Your task to perform on an android device: open chrome privacy settings Image 0: 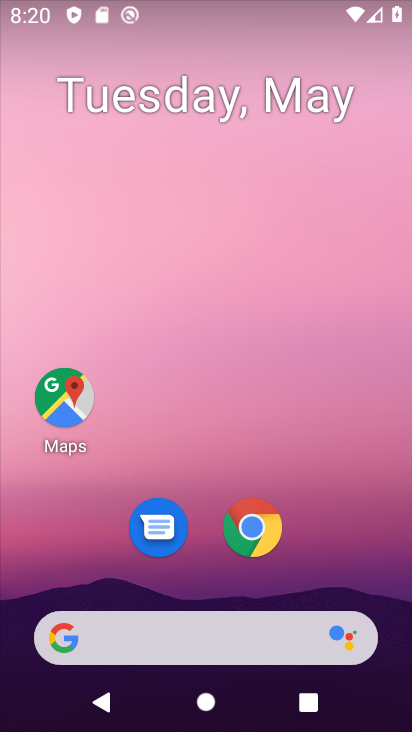
Step 0: click (256, 541)
Your task to perform on an android device: open chrome privacy settings Image 1: 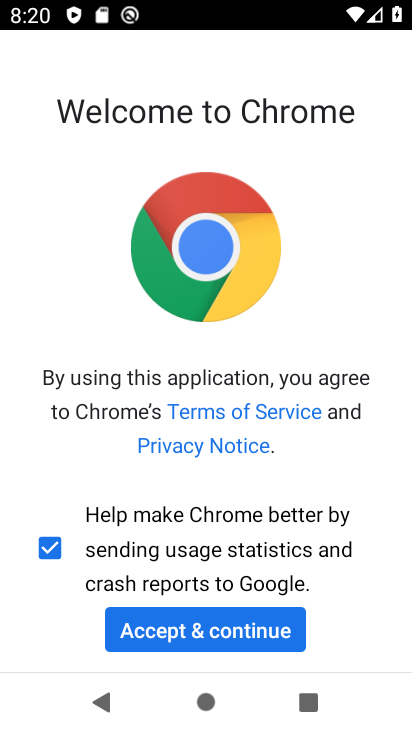
Step 1: click (233, 622)
Your task to perform on an android device: open chrome privacy settings Image 2: 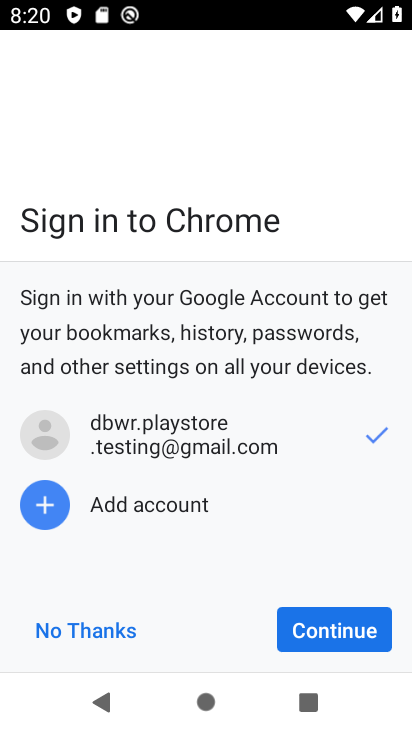
Step 2: click (331, 618)
Your task to perform on an android device: open chrome privacy settings Image 3: 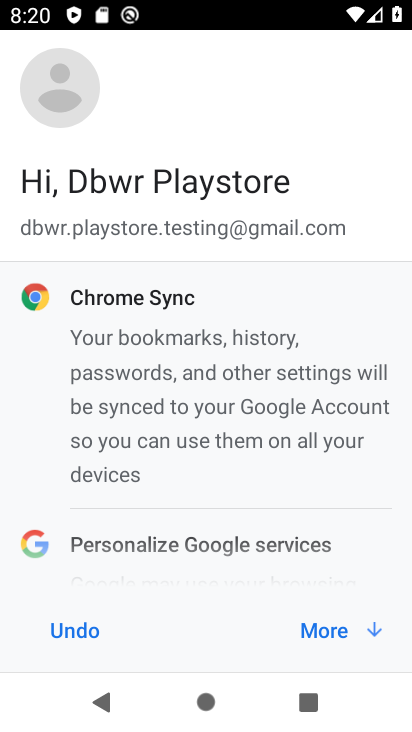
Step 3: click (332, 636)
Your task to perform on an android device: open chrome privacy settings Image 4: 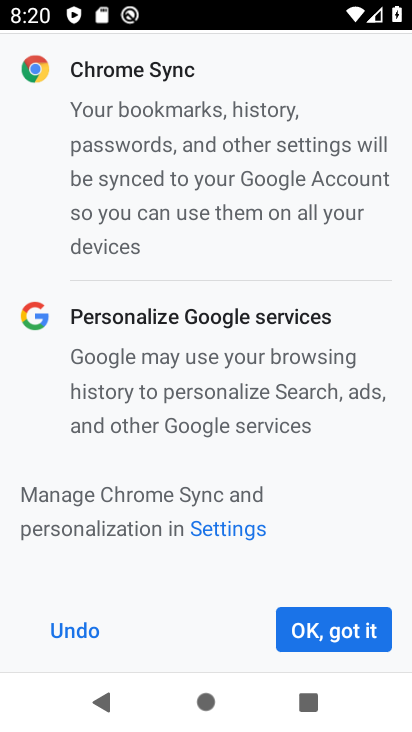
Step 4: click (332, 636)
Your task to perform on an android device: open chrome privacy settings Image 5: 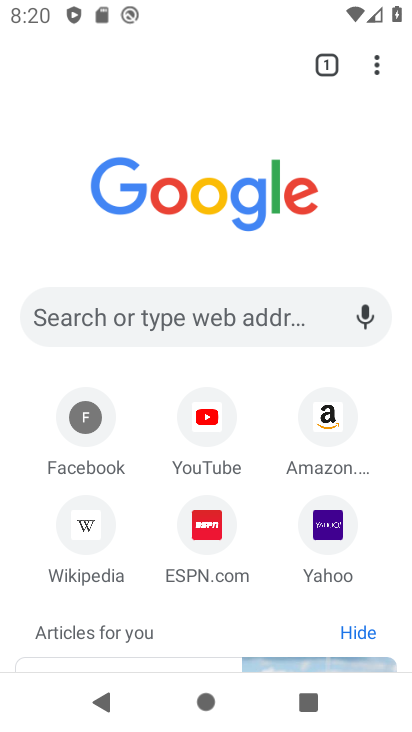
Step 5: drag from (383, 69) to (237, 535)
Your task to perform on an android device: open chrome privacy settings Image 6: 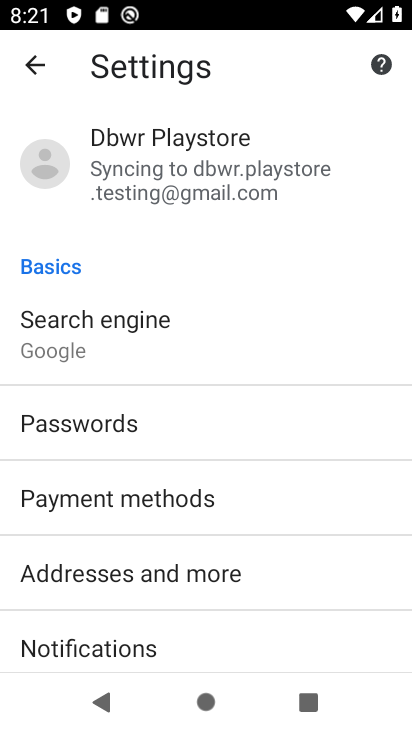
Step 6: drag from (81, 629) to (191, 260)
Your task to perform on an android device: open chrome privacy settings Image 7: 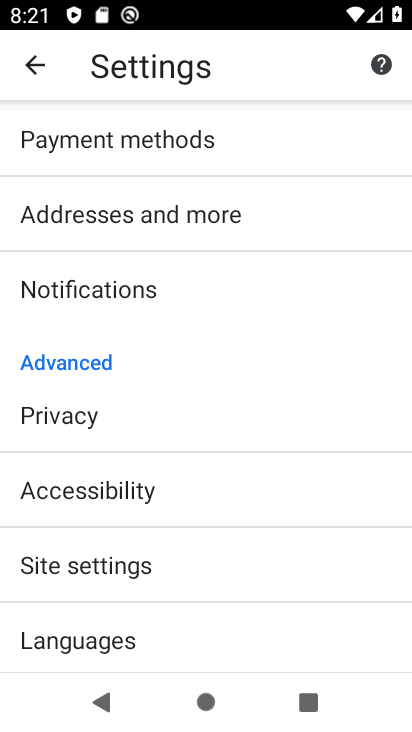
Step 7: click (116, 404)
Your task to perform on an android device: open chrome privacy settings Image 8: 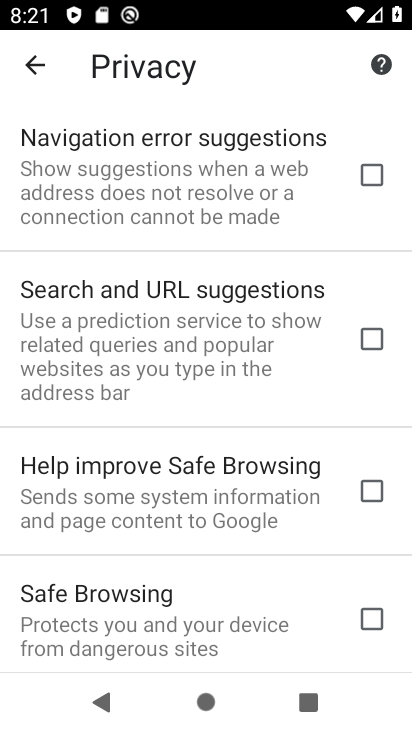
Step 8: task complete